Your task to perform on an android device: What's the weather? Image 0: 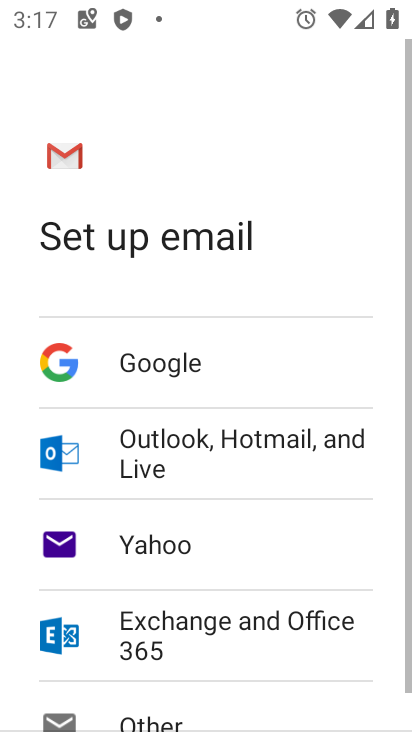
Step 0: press home button
Your task to perform on an android device: What's the weather? Image 1: 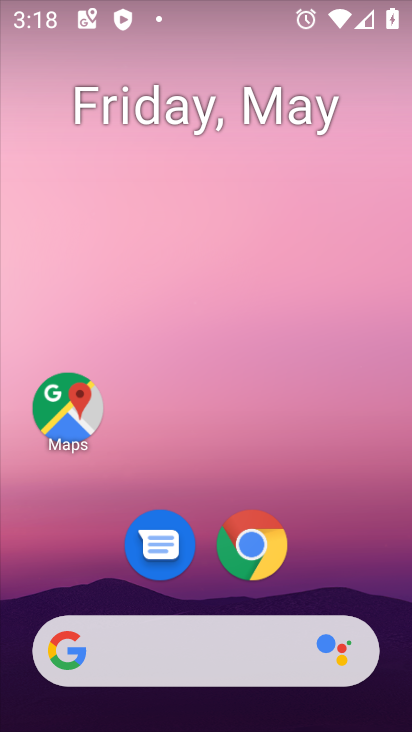
Step 1: click (170, 669)
Your task to perform on an android device: What's the weather? Image 2: 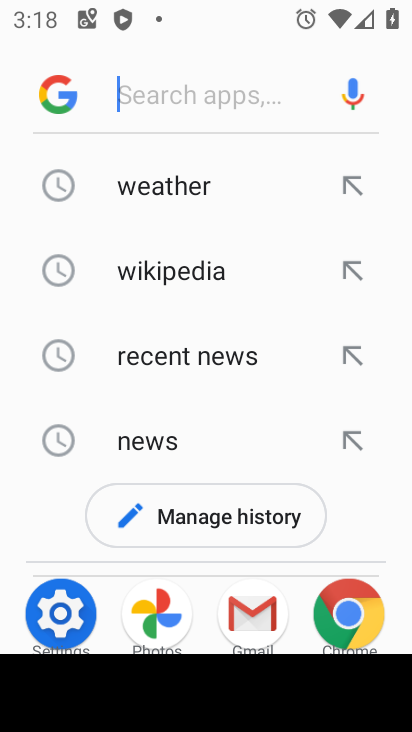
Step 2: click (182, 194)
Your task to perform on an android device: What's the weather? Image 3: 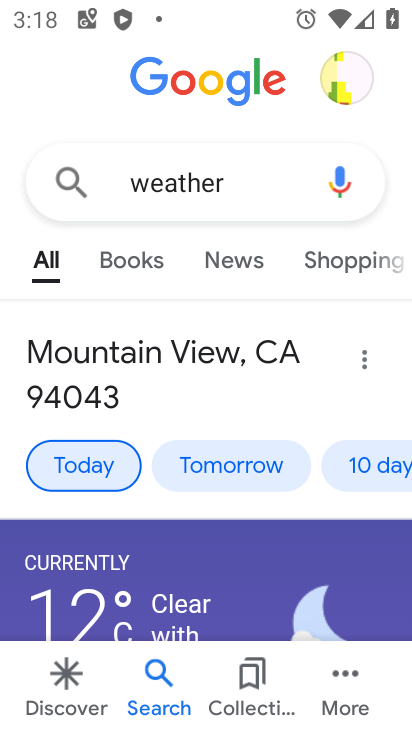
Step 3: task complete